Your task to perform on an android device: Go to notification settings Image 0: 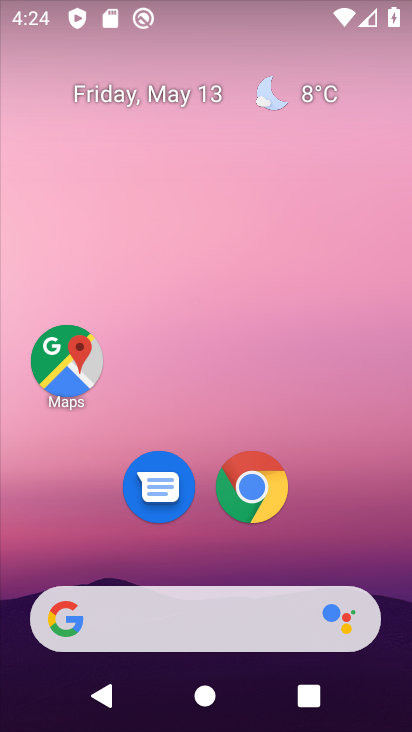
Step 0: drag from (357, 536) to (313, 194)
Your task to perform on an android device: Go to notification settings Image 1: 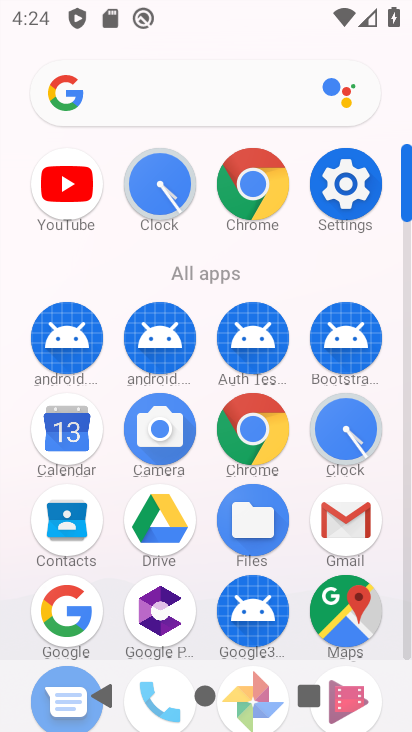
Step 1: click (343, 207)
Your task to perform on an android device: Go to notification settings Image 2: 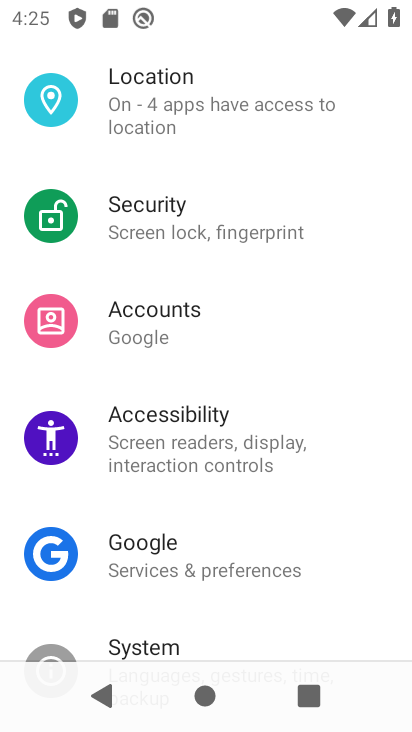
Step 2: drag from (185, 210) to (182, 595)
Your task to perform on an android device: Go to notification settings Image 3: 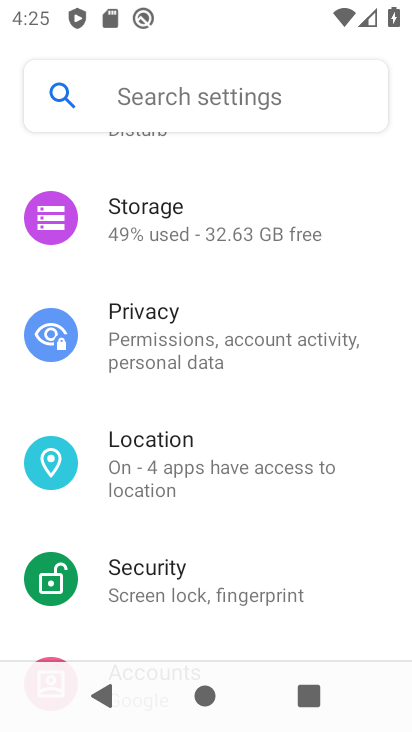
Step 3: drag from (157, 217) to (150, 685)
Your task to perform on an android device: Go to notification settings Image 4: 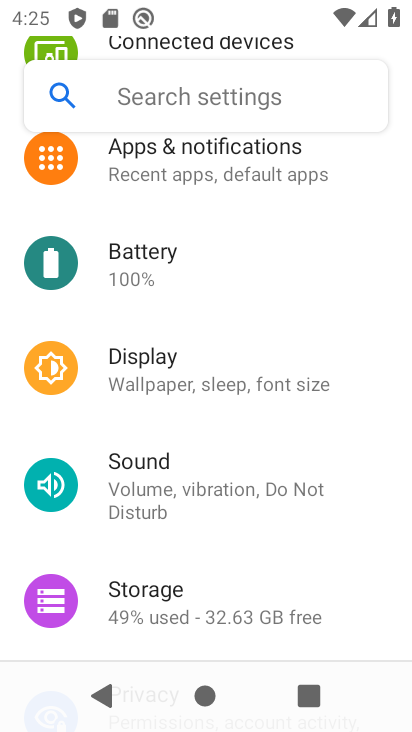
Step 4: click (229, 184)
Your task to perform on an android device: Go to notification settings Image 5: 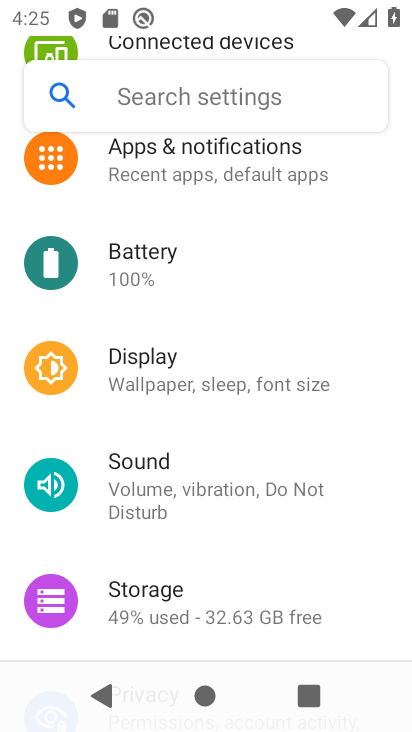
Step 5: task complete